Your task to perform on an android device: Is it going to rain tomorrow? Image 0: 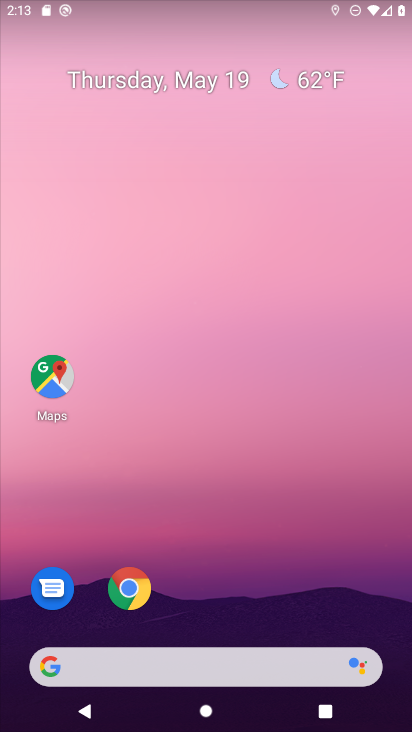
Step 0: click (313, 87)
Your task to perform on an android device: Is it going to rain tomorrow? Image 1: 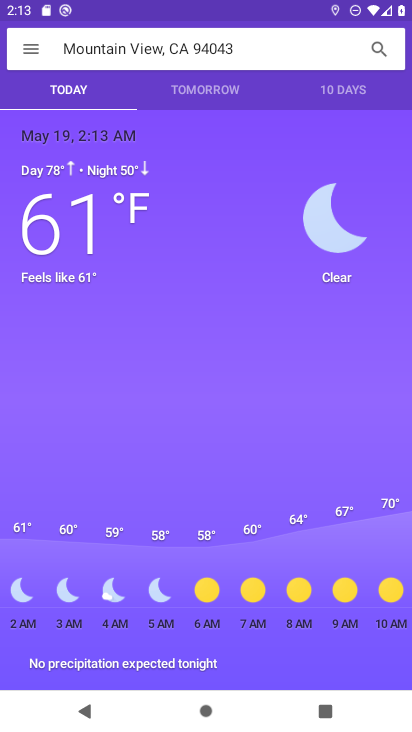
Step 1: click (178, 94)
Your task to perform on an android device: Is it going to rain tomorrow? Image 2: 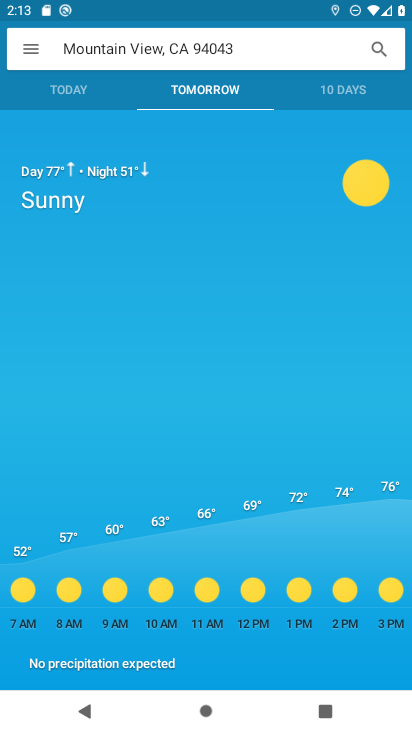
Step 2: task complete